Your task to perform on an android device: toggle notifications settings in the gmail app Image 0: 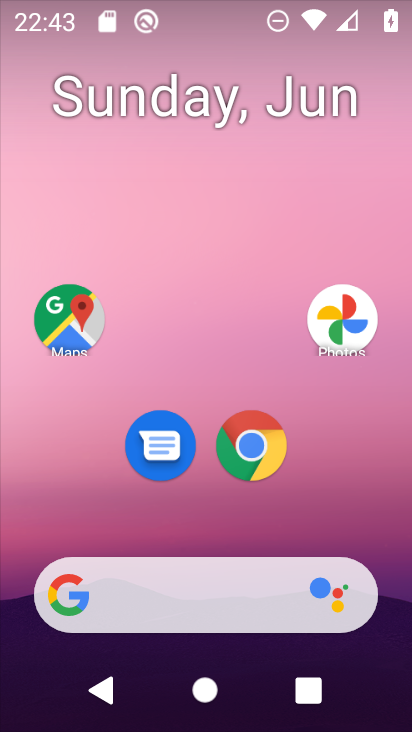
Step 0: drag from (197, 498) to (253, 0)
Your task to perform on an android device: toggle notifications settings in the gmail app Image 1: 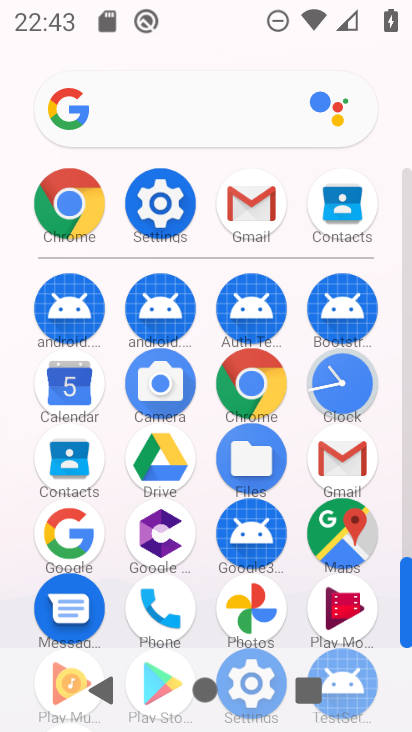
Step 1: click (258, 201)
Your task to perform on an android device: toggle notifications settings in the gmail app Image 2: 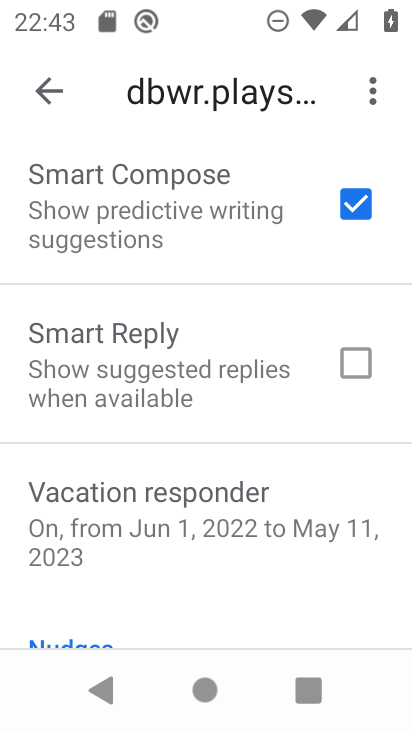
Step 2: click (53, 89)
Your task to perform on an android device: toggle notifications settings in the gmail app Image 3: 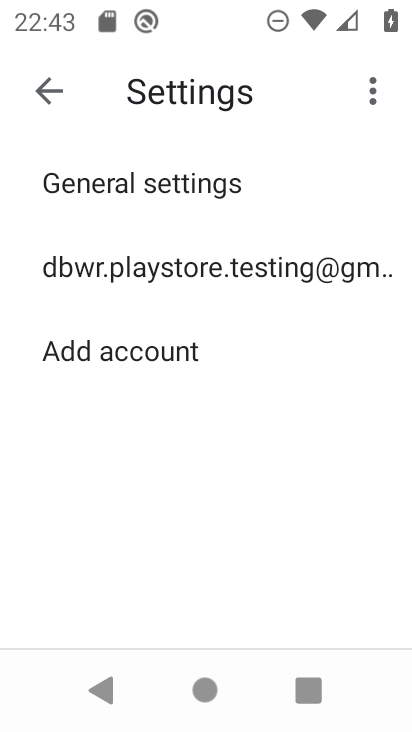
Step 3: click (143, 190)
Your task to perform on an android device: toggle notifications settings in the gmail app Image 4: 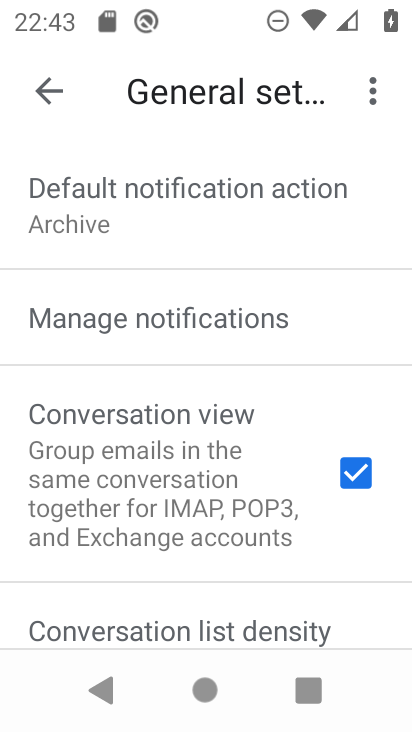
Step 4: click (150, 315)
Your task to perform on an android device: toggle notifications settings in the gmail app Image 5: 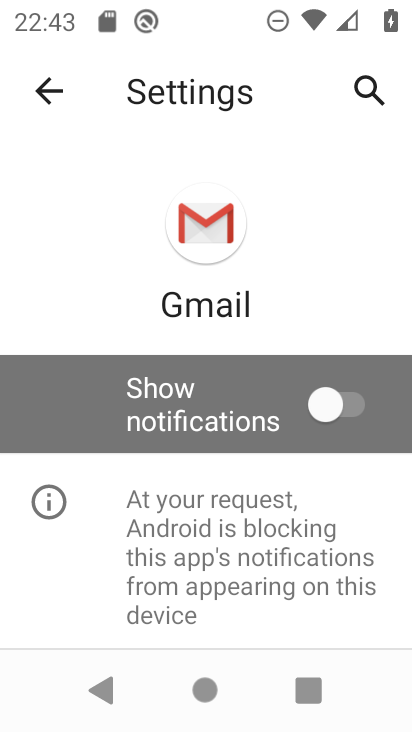
Step 5: click (334, 396)
Your task to perform on an android device: toggle notifications settings in the gmail app Image 6: 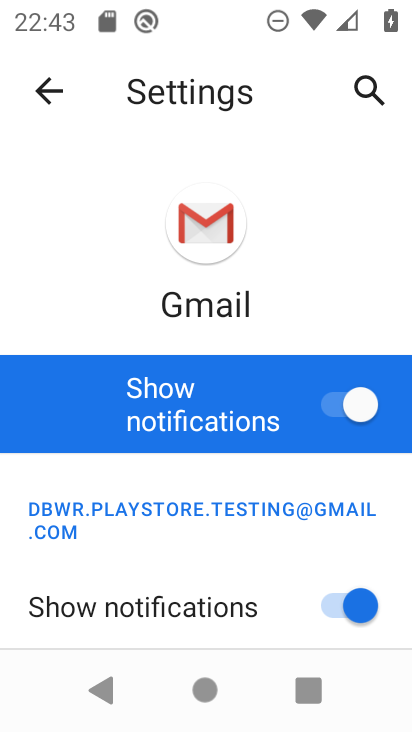
Step 6: task complete